Your task to perform on an android device: Set the phone to "Do not disturb". Image 0: 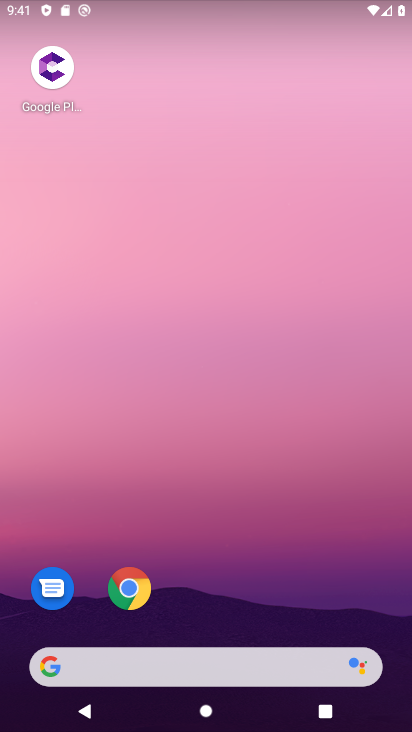
Step 0: drag from (194, 642) to (303, 102)
Your task to perform on an android device: Set the phone to "Do not disturb". Image 1: 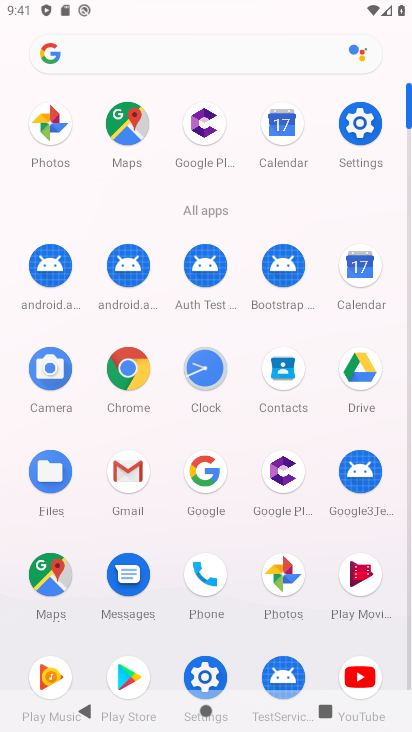
Step 1: click (204, 681)
Your task to perform on an android device: Set the phone to "Do not disturb". Image 2: 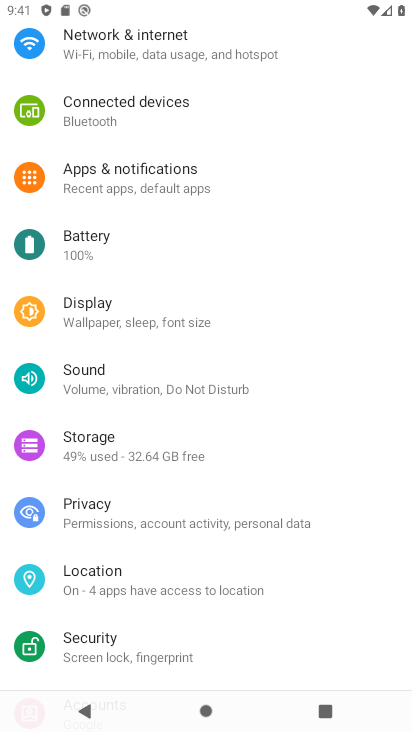
Step 2: click (162, 177)
Your task to perform on an android device: Set the phone to "Do not disturb". Image 3: 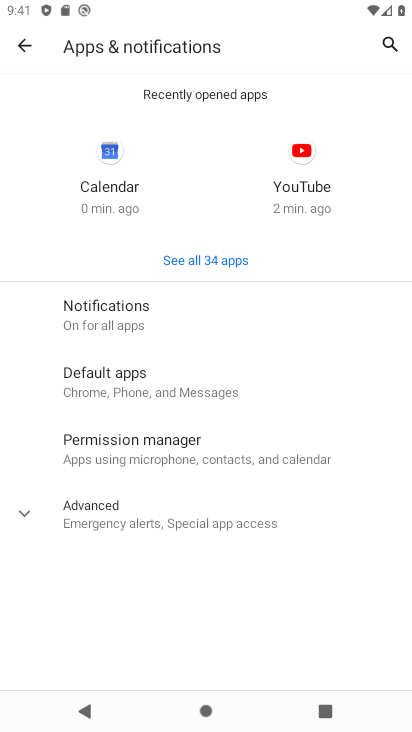
Step 3: click (179, 312)
Your task to perform on an android device: Set the phone to "Do not disturb". Image 4: 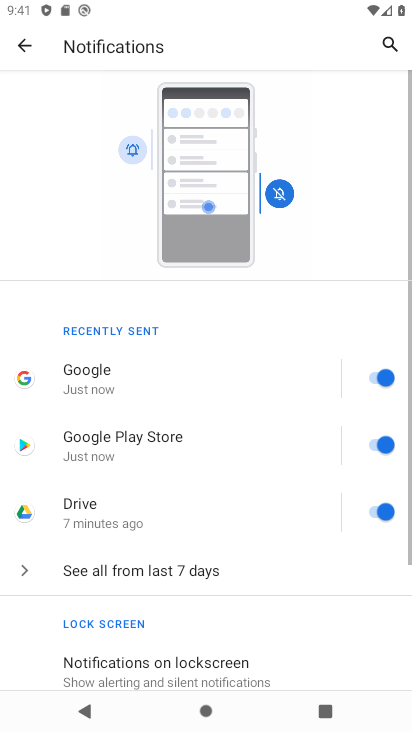
Step 4: drag from (169, 625) to (347, 179)
Your task to perform on an android device: Set the phone to "Do not disturb". Image 5: 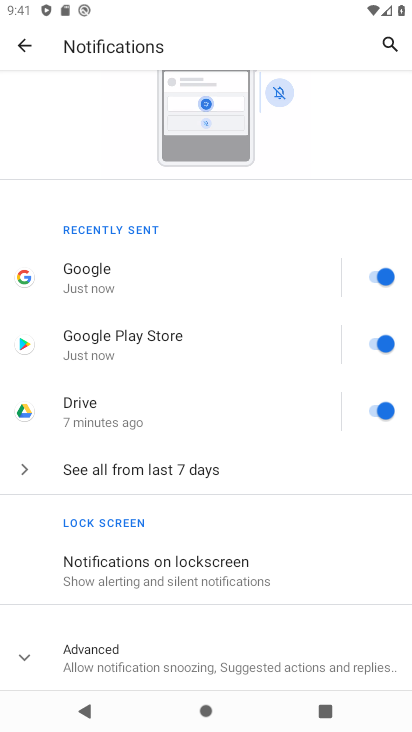
Step 5: click (154, 660)
Your task to perform on an android device: Set the phone to "Do not disturb". Image 6: 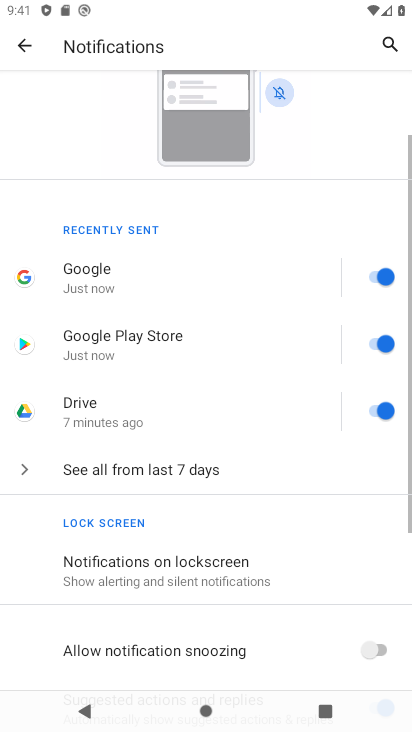
Step 6: drag from (157, 647) to (291, 167)
Your task to perform on an android device: Set the phone to "Do not disturb". Image 7: 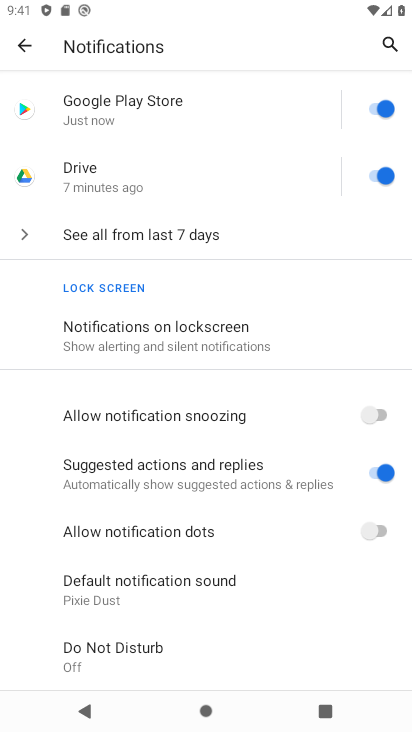
Step 7: click (163, 652)
Your task to perform on an android device: Set the phone to "Do not disturb". Image 8: 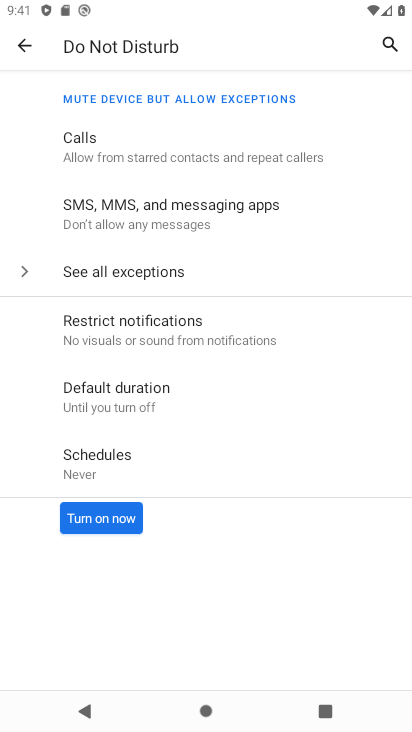
Step 8: click (118, 523)
Your task to perform on an android device: Set the phone to "Do not disturb". Image 9: 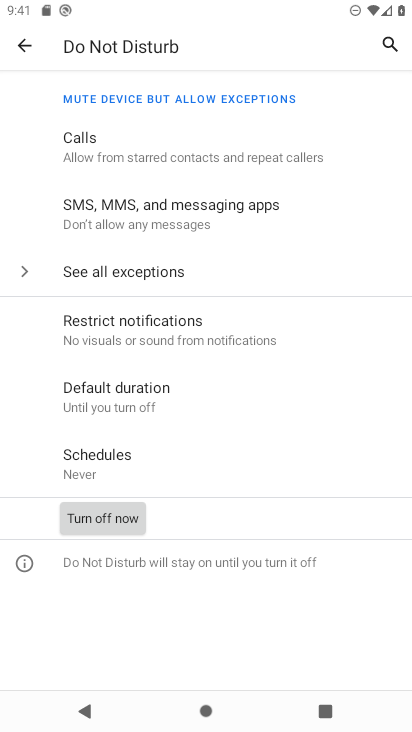
Step 9: task complete